Your task to perform on an android device: Open notification settings Image 0: 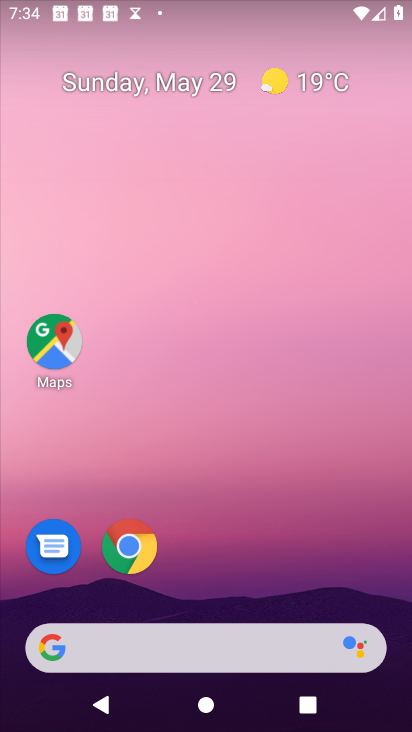
Step 0: drag from (204, 489) to (259, 7)
Your task to perform on an android device: Open notification settings Image 1: 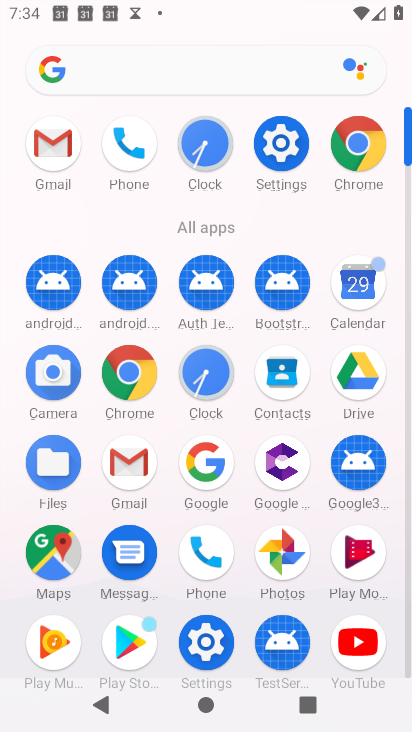
Step 1: click (278, 147)
Your task to perform on an android device: Open notification settings Image 2: 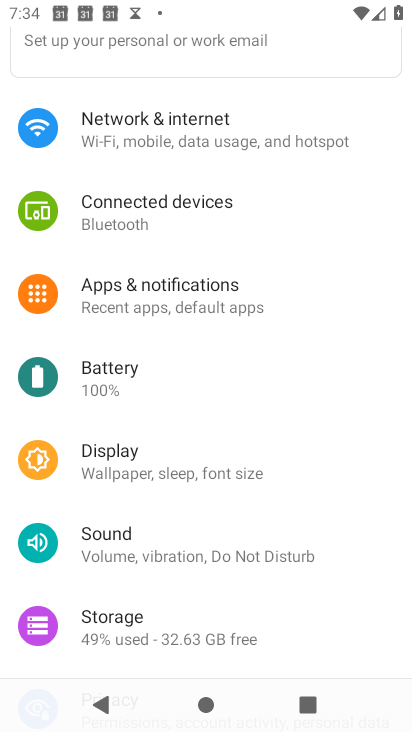
Step 2: click (141, 313)
Your task to perform on an android device: Open notification settings Image 3: 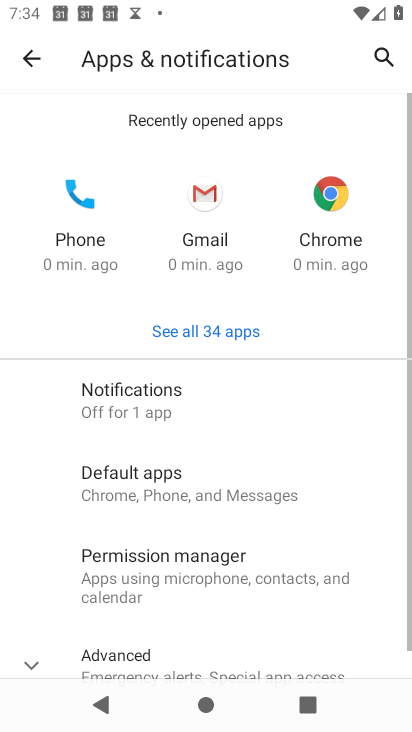
Step 3: click (107, 405)
Your task to perform on an android device: Open notification settings Image 4: 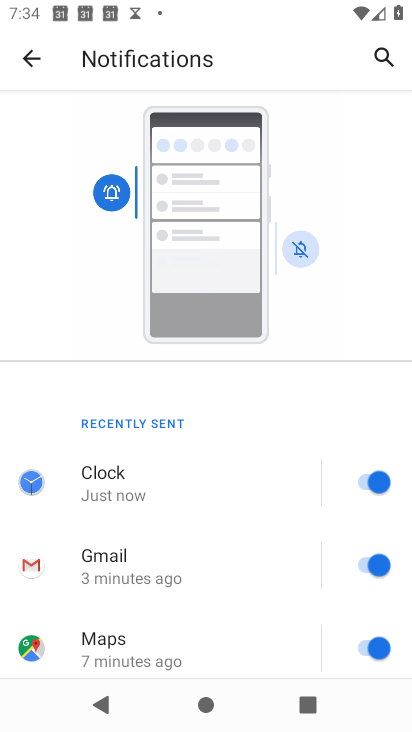
Step 4: task complete